Your task to perform on an android device: manage bookmarks in the chrome app Image 0: 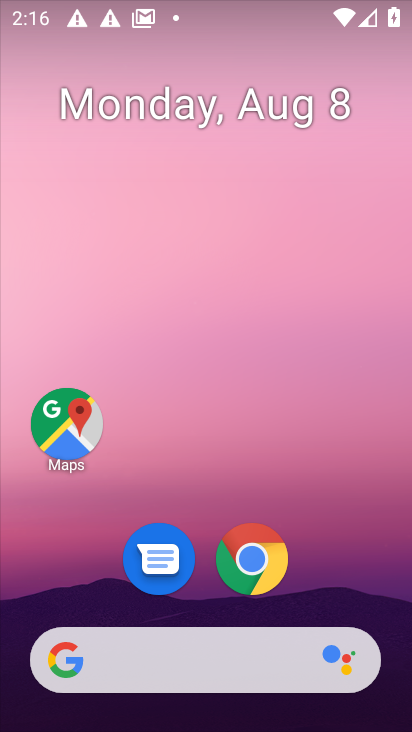
Step 0: click (250, 560)
Your task to perform on an android device: manage bookmarks in the chrome app Image 1: 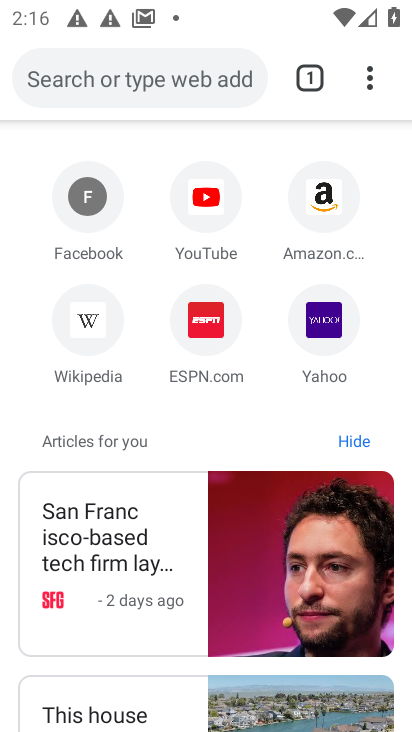
Step 1: click (371, 82)
Your task to perform on an android device: manage bookmarks in the chrome app Image 2: 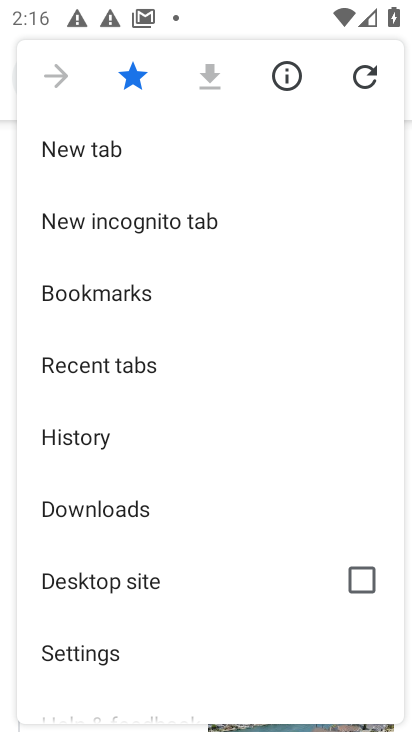
Step 2: click (144, 290)
Your task to perform on an android device: manage bookmarks in the chrome app Image 3: 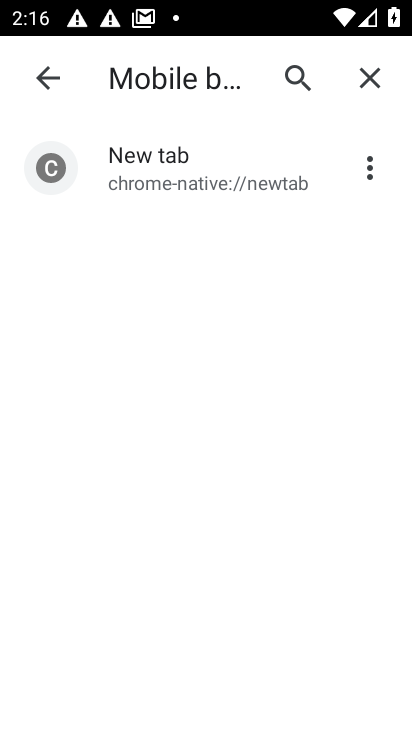
Step 3: click (366, 171)
Your task to perform on an android device: manage bookmarks in the chrome app Image 4: 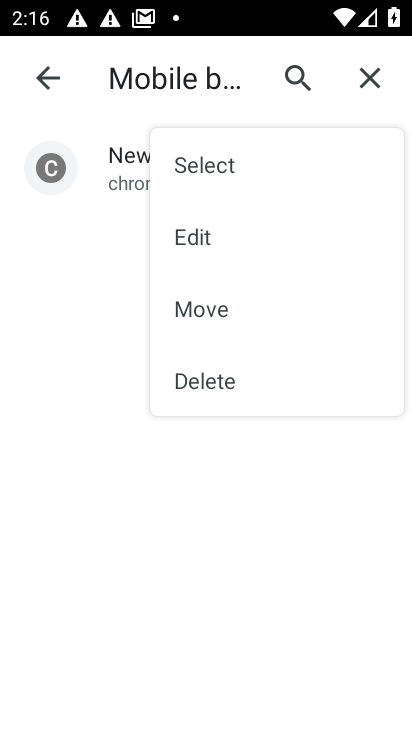
Step 4: click (218, 316)
Your task to perform on an android device: manage bookmarks in the chrome app Image 5: 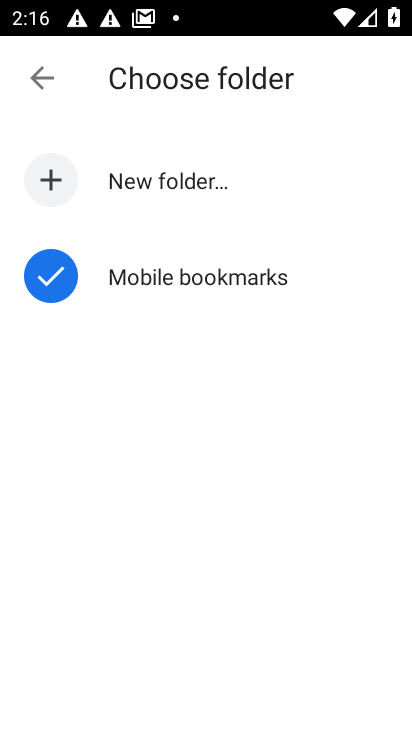
Step 5: click (181, 280)
Your task to perform on an android device: manage bookmarks in the chrome app Image 6: 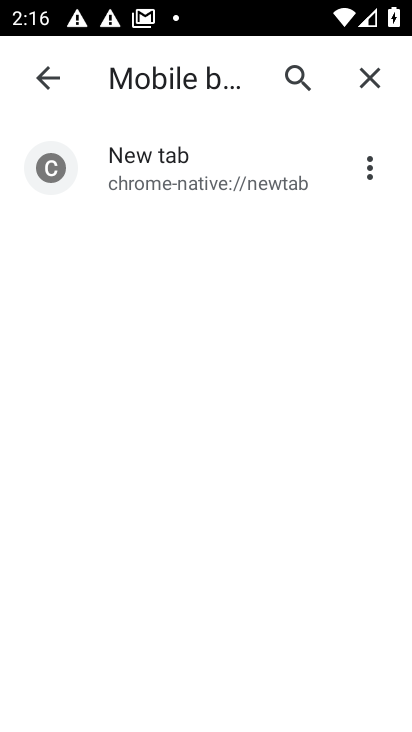
Step 6: task complete